Your task to perform on an android device: Is it going to rain tomorrow? Image 0: 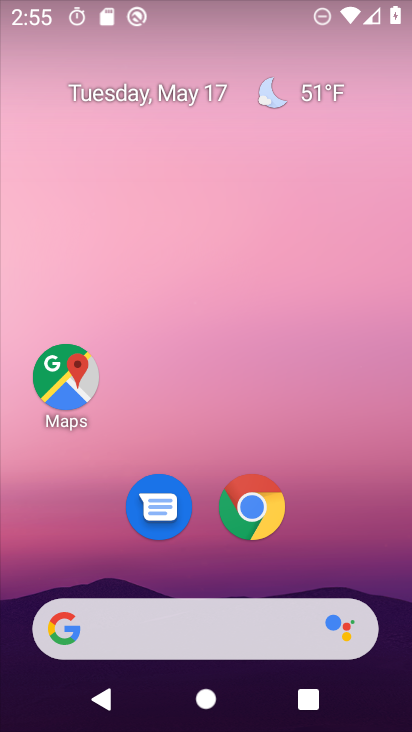
Step 0: drag from (201, 548) to (204, 149)
Your task to perform on an android device: Is it going to rain tomorrow? Image 1: 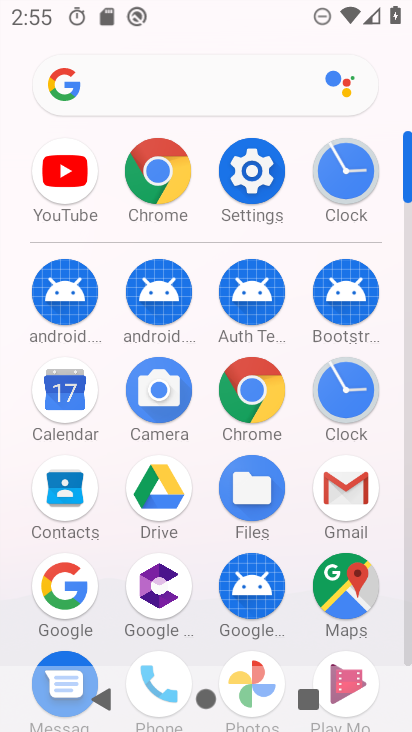
Step 1: click (61, 587)
Your task to perform on an android device: Is it going to rain tomorrow? Image 2: 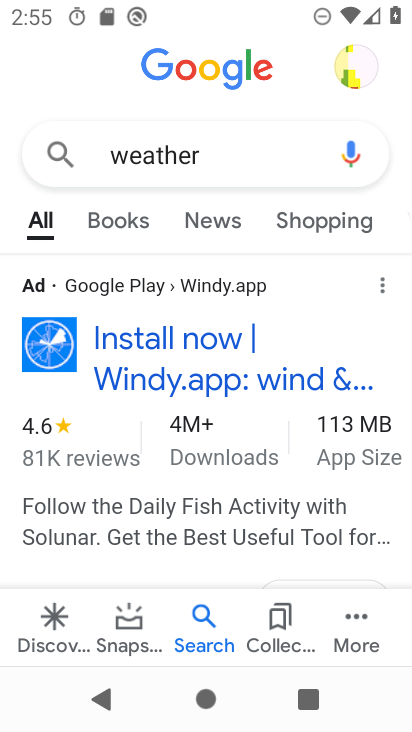
Step 2: click (245, 171)
Your task to perform on an android device: Is it going to rain tomorrow? Image 3: 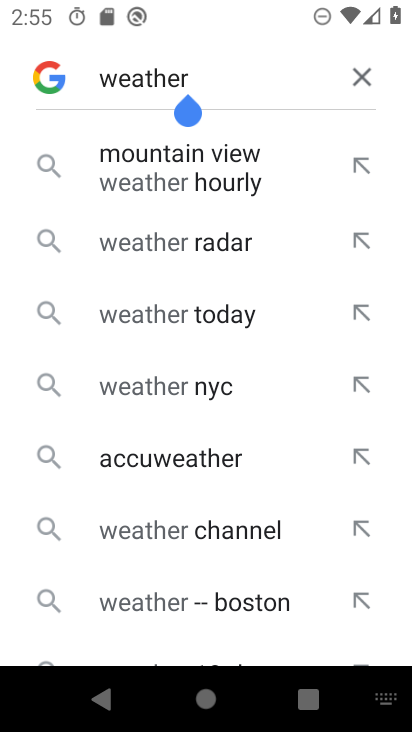
Step 3: click (350, 78)
Your task to perform on an android device: Is it going to rain tomorrow? Image 4: 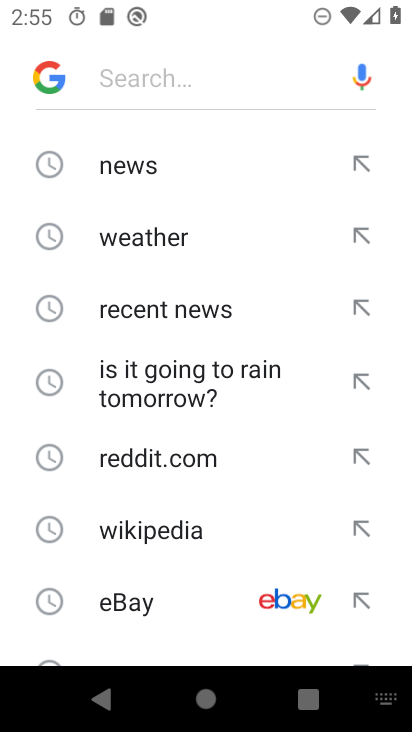
Step 4: type "is it going to rain tomorrow"
Your task to perform on an android device: Is it going to rain tomorrow? Image 5: 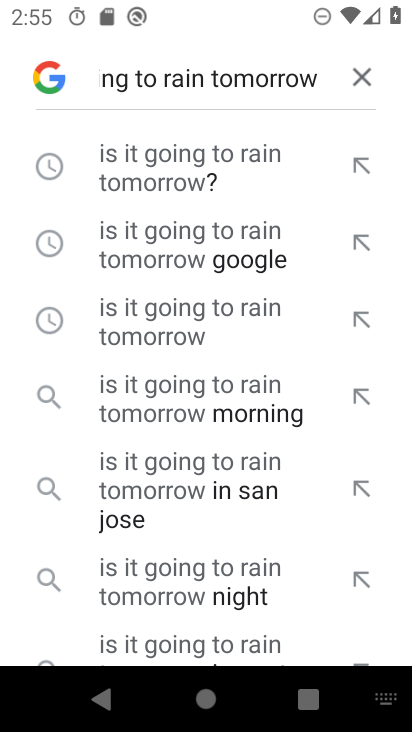
Step 5: click (226, 178)
Your task to perform on an android device: Is it going to rain tomorrow? Image 6: 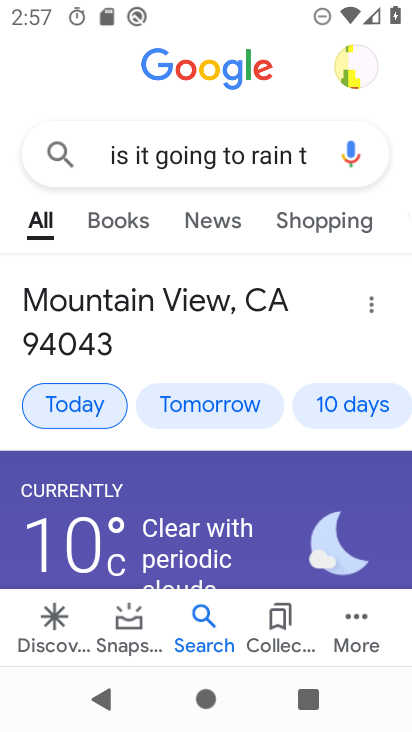
Step 6: task complete